Your task to perform on an android device: open app "Adobe Acrobat Reader" Image 0: 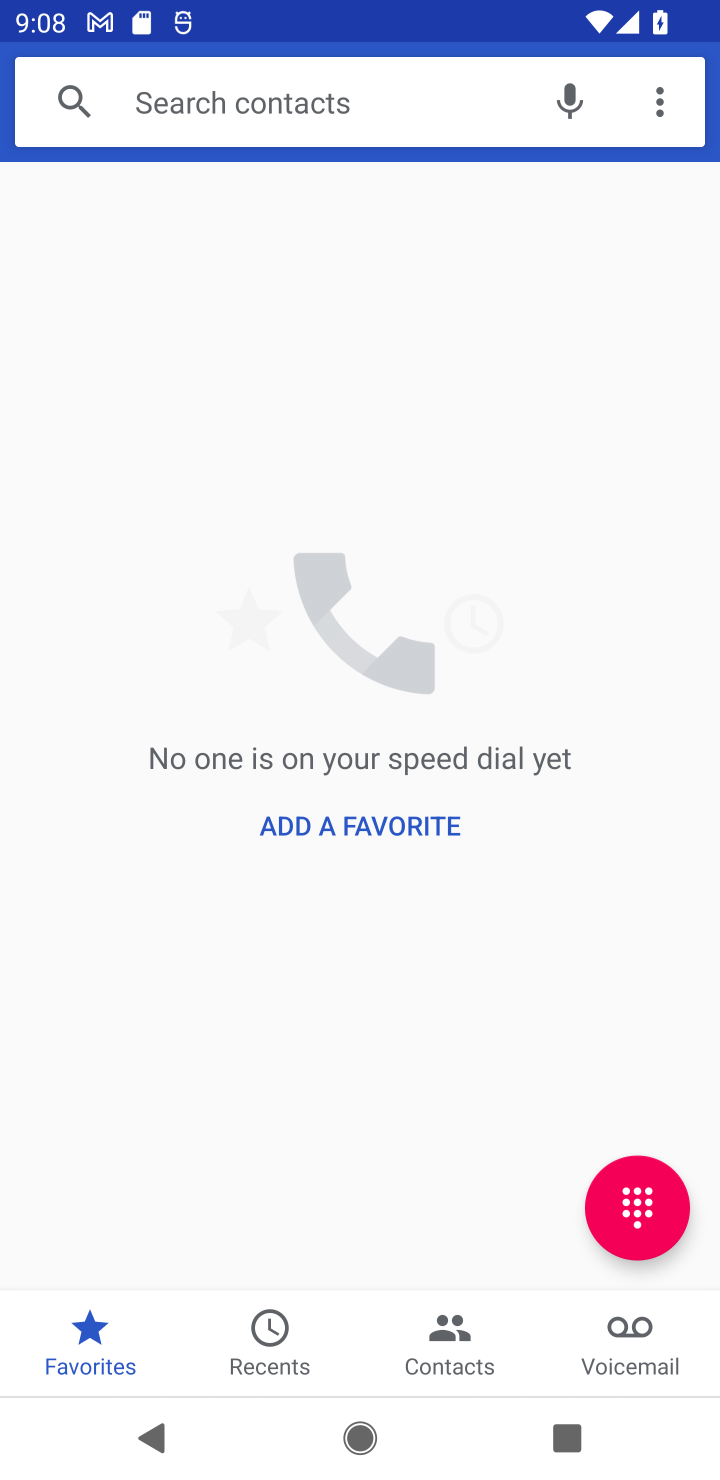
Step 0: press home button
Your task to perform on an android device: open app "Adobe Acrobat Reader" Image 1: 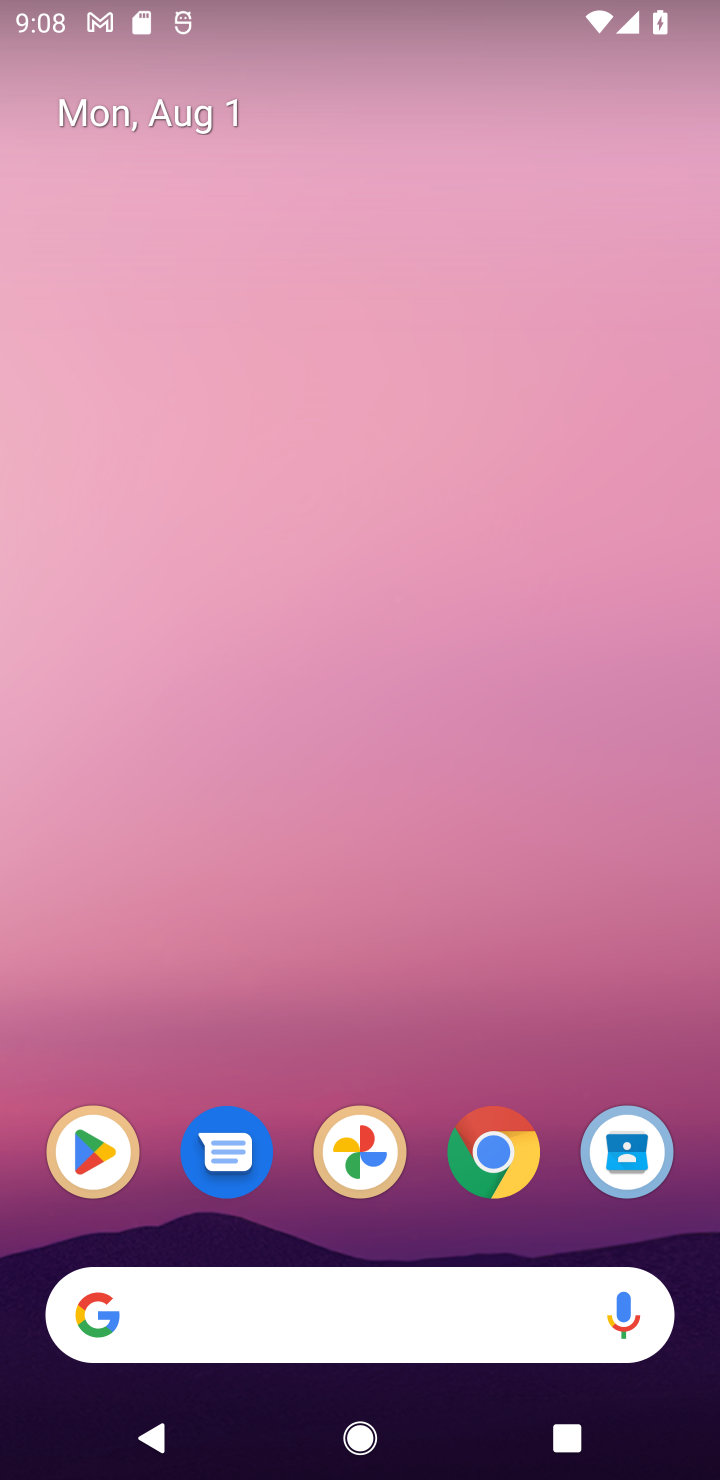
Step 1: drag from (338, 1224) to (408, 56)
Your task to perform on an android device: open app "Adobe Acrobat Reader" Image 2: 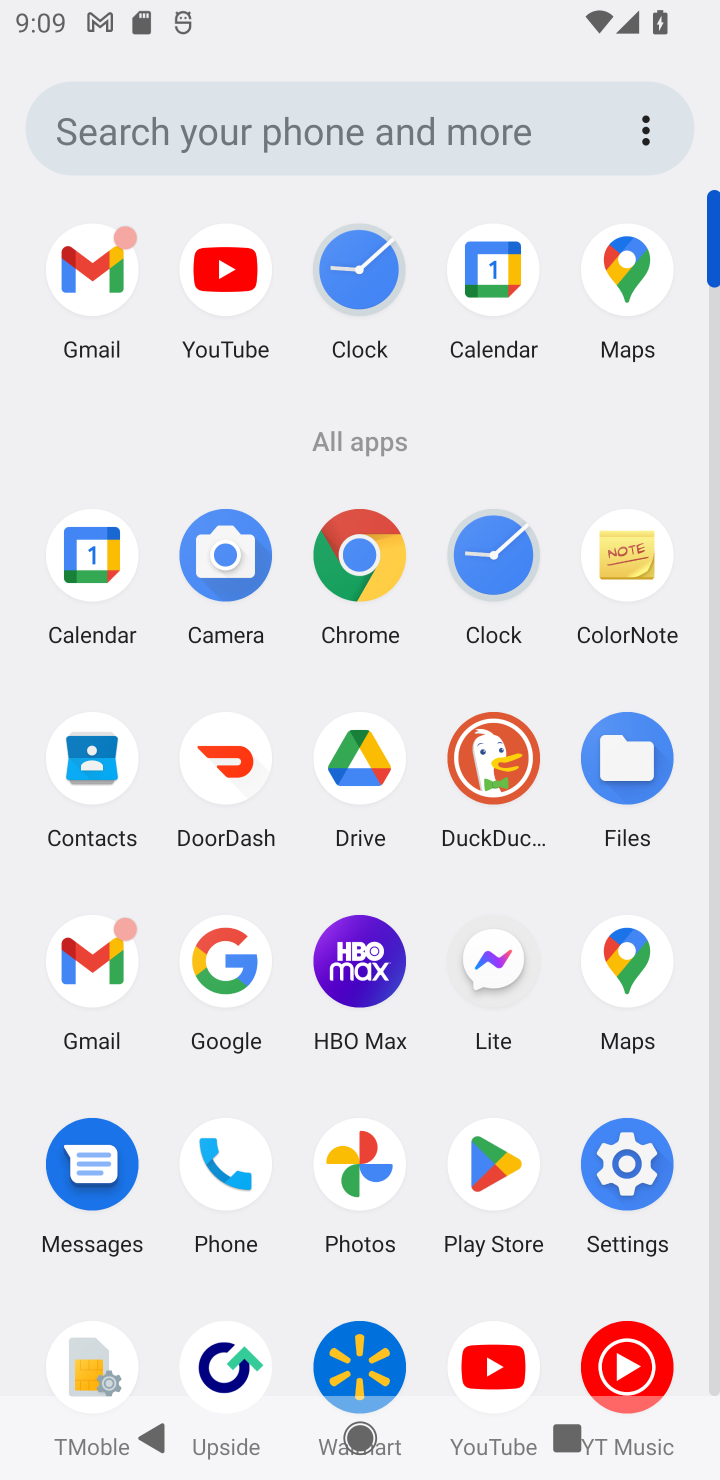
Step 2: click (505, 1161)
Your task to perform on an android device: open app "Adobe Acrobat Reader" Image 3: 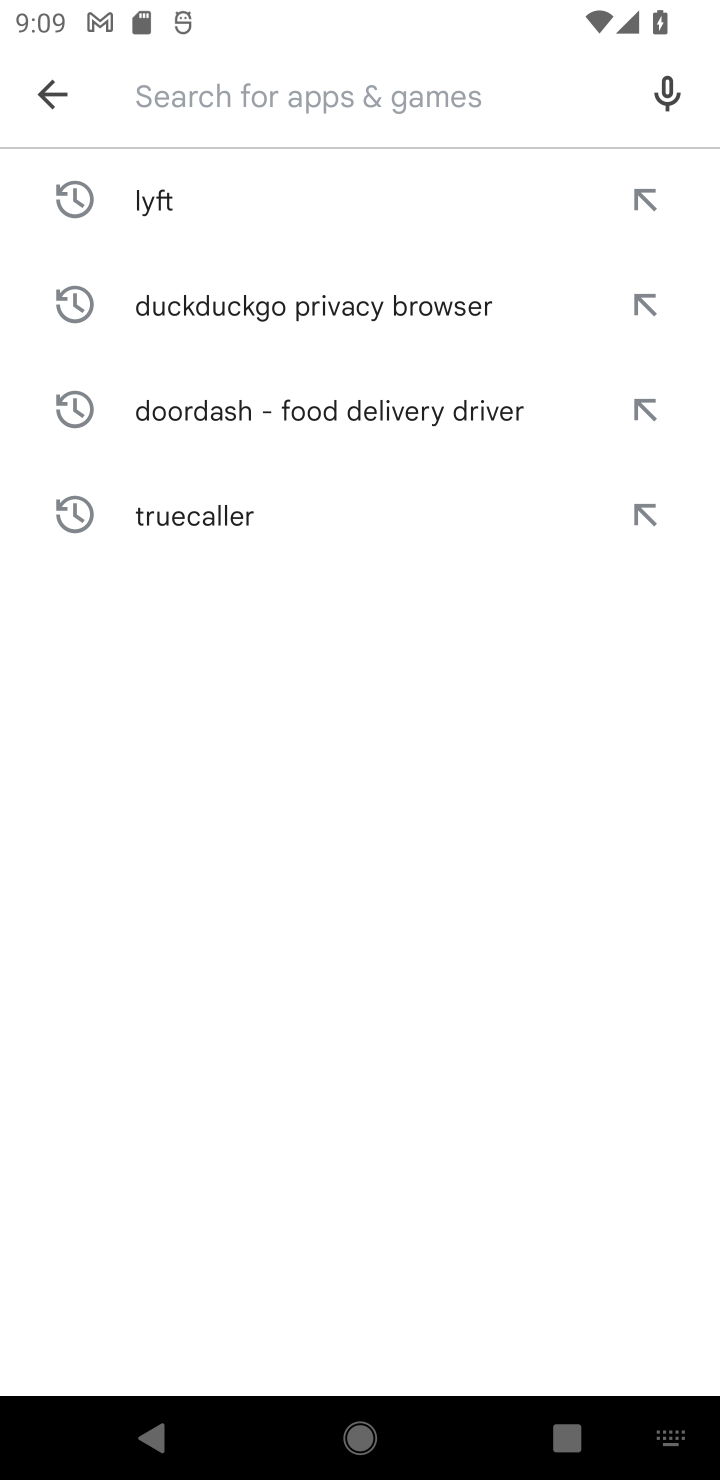
Step 3: type "Adobe Acrobat Reade"
Your task to perform on an android device: open app "Adobe Acrobat Reader" Image 4: 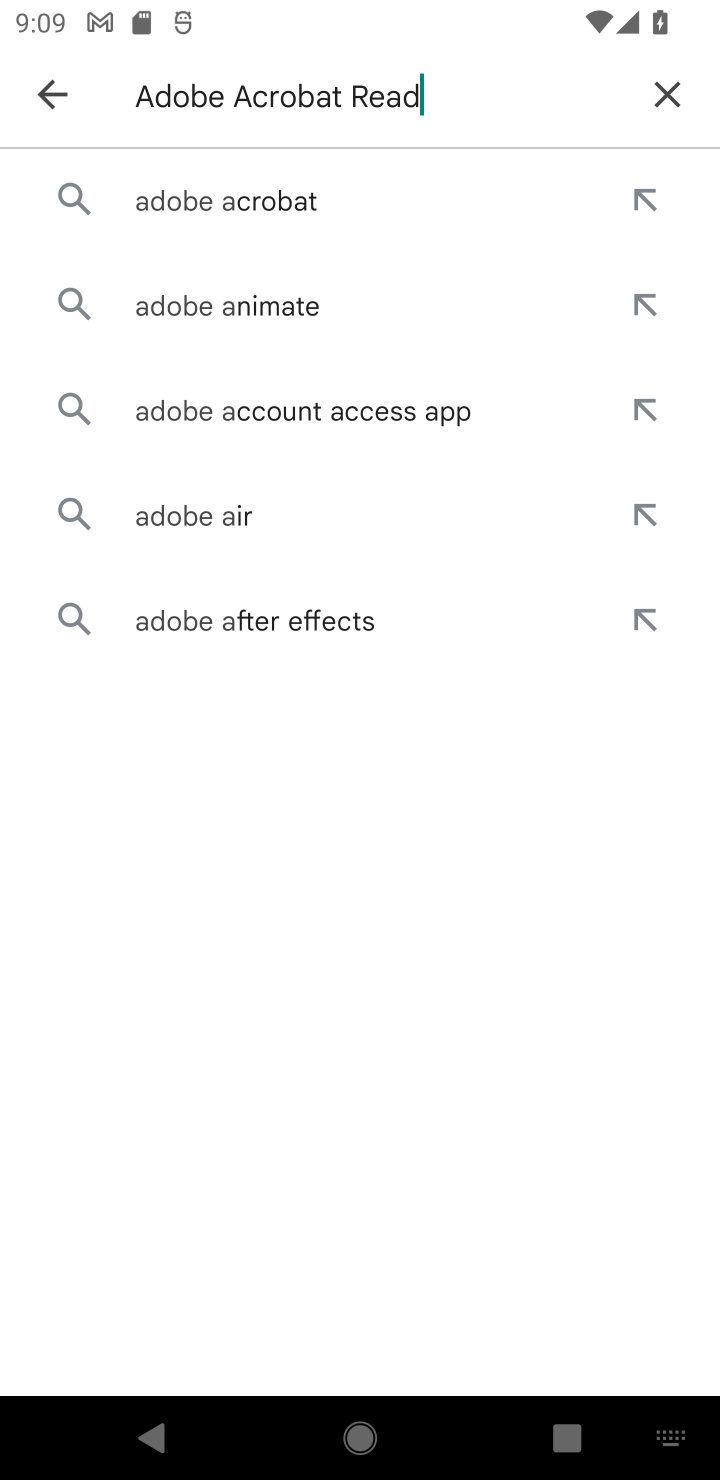
Step 4: type ""
Your task to perform on an android device: open app "Adobe Acrobat Reader" Image 5: 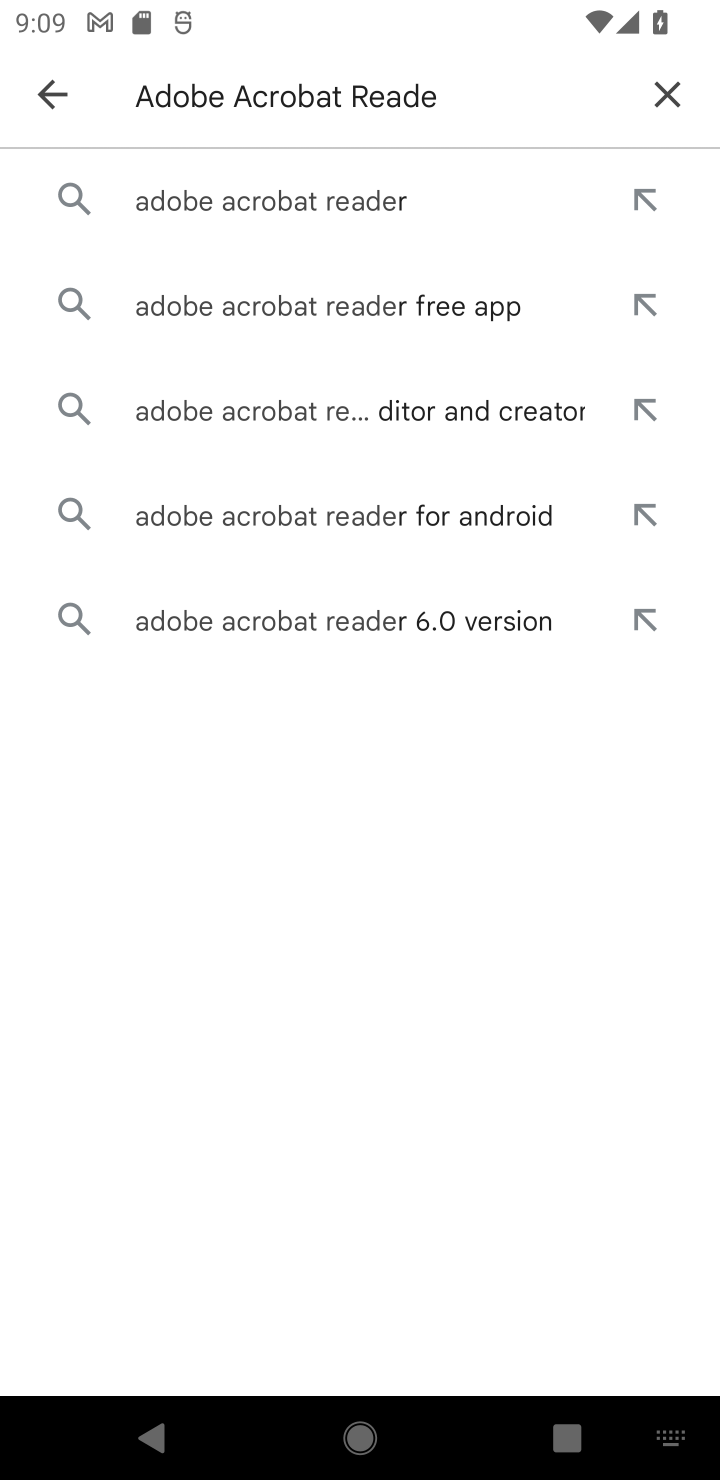
Step 5: click (249, 179)
Your task to perform on an android device: open app "Adobe Acrobat Reader" Image 6: 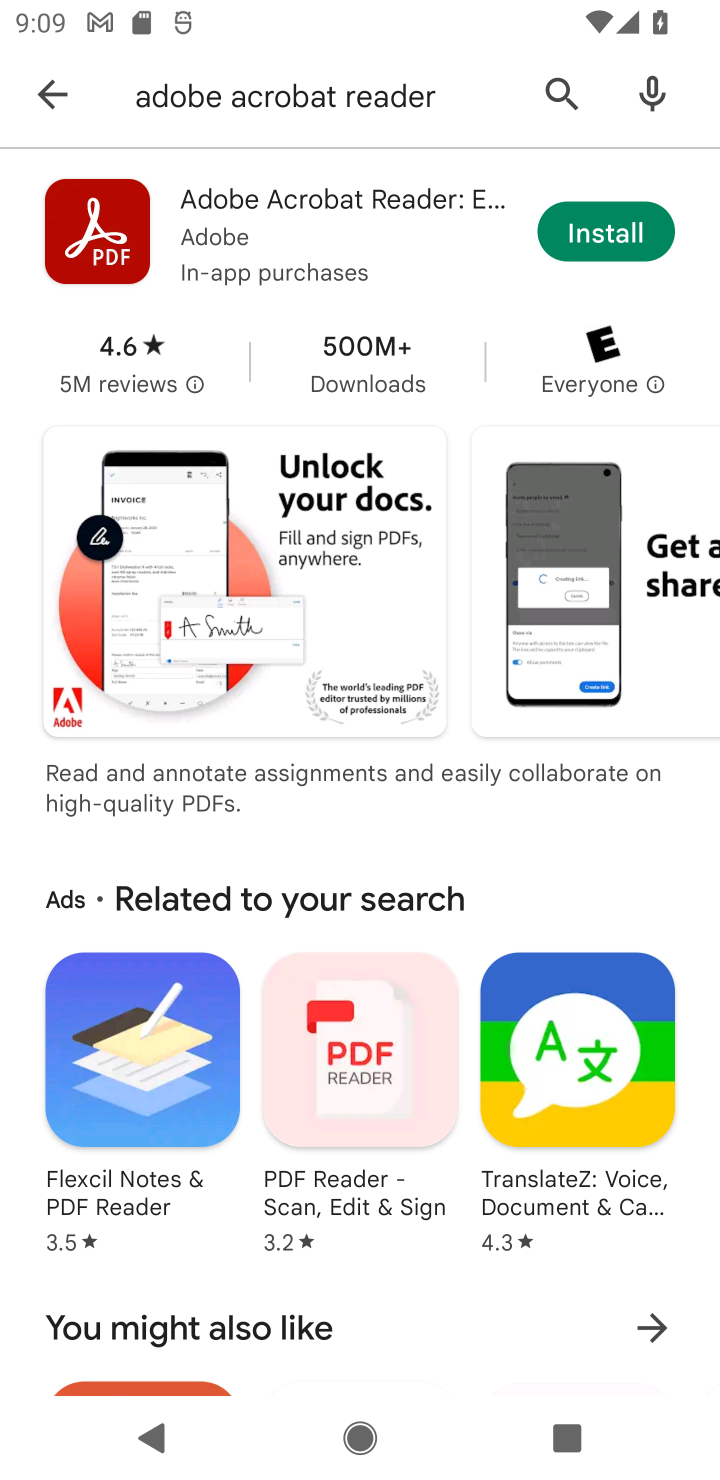
Step 6: click (572, 213)
Your task to perform on an android device: open app "Adobe Acrobat Reader" Image 7: 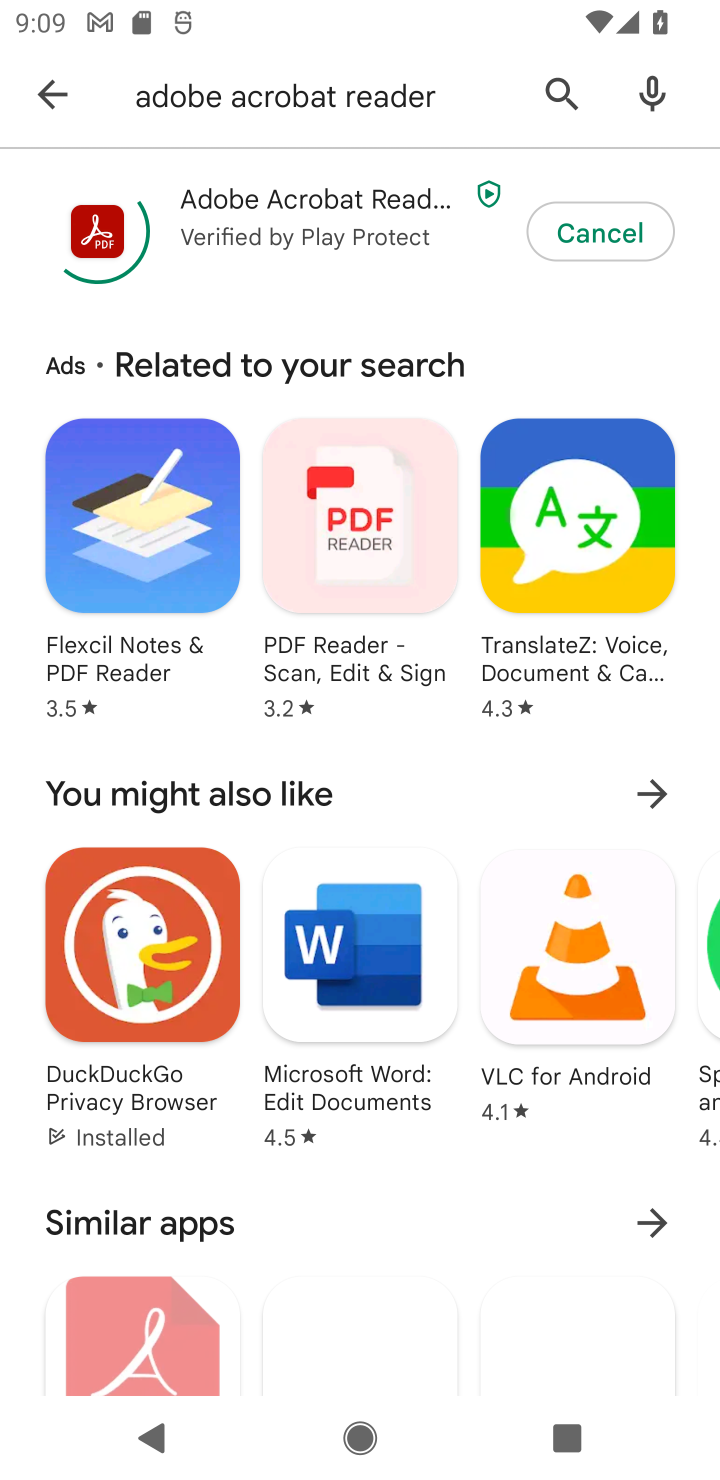
Step 7: click (572, 213)
Your task to perform on an android device: open app "Adobe Acrobat Reader" Image 8: 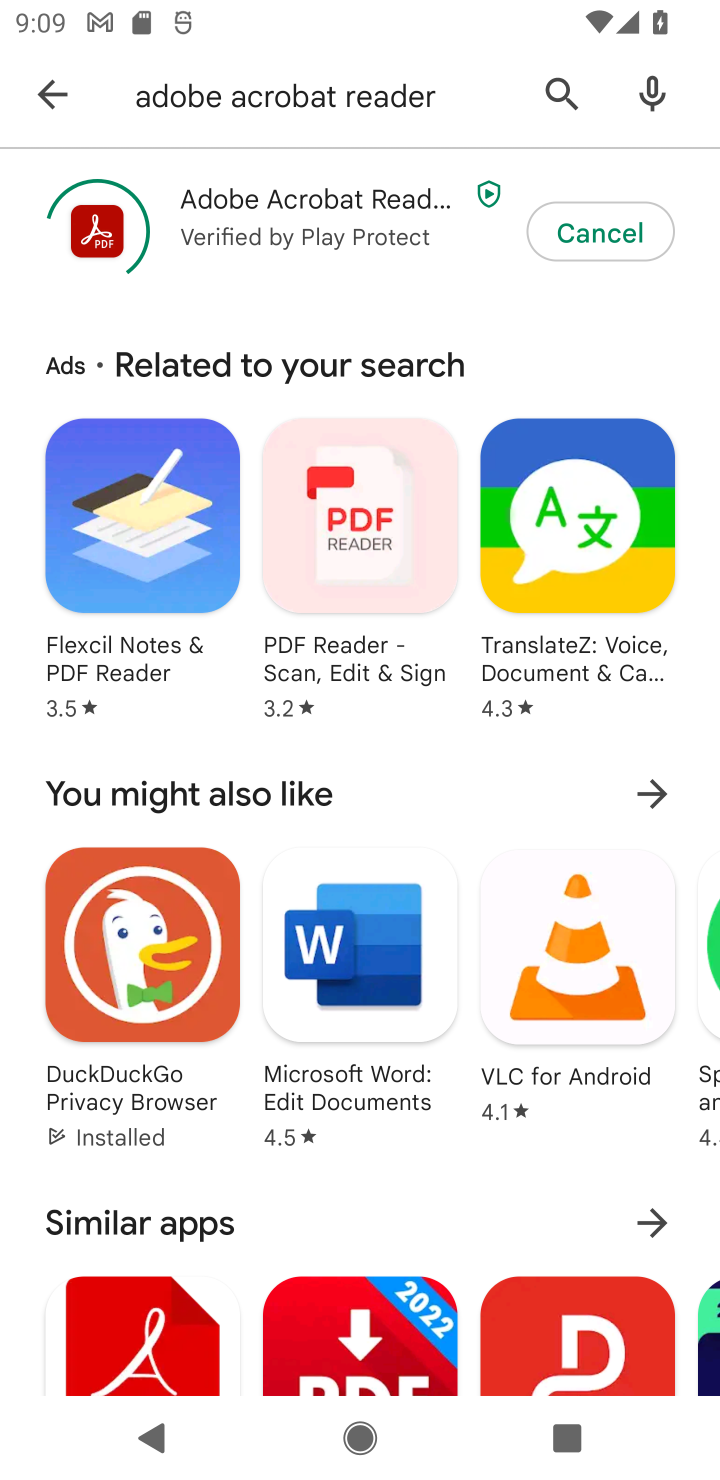
Step 8: click (570, 215)
Your task to perform on an android device: open app "Adobe Acrobat Reader" Image 9: 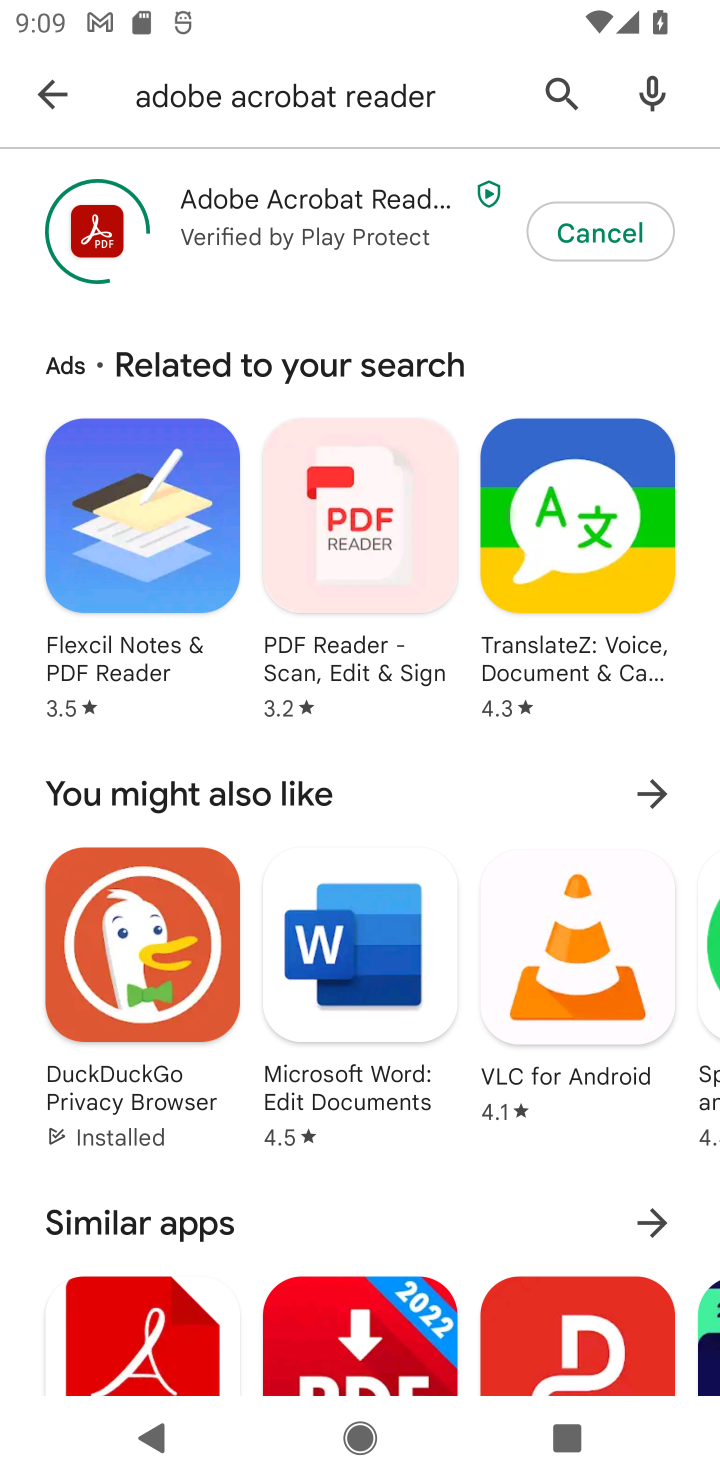
Step 9: click (567, 215)
Your task to perform on an android device: open app "Adobe Acrobat Reader" Image 10: 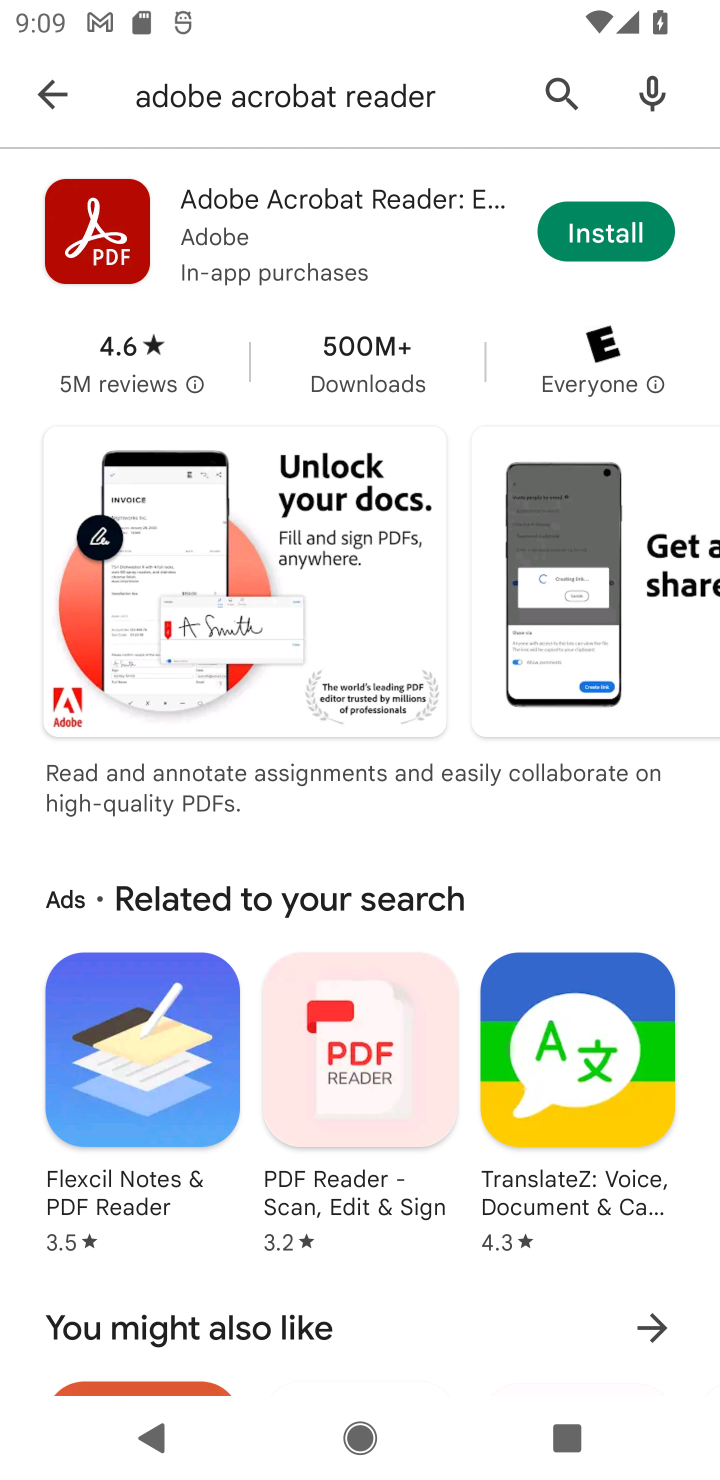
Step 10: task complete